Your task to perform on an android device: set default search engine in the chrome app Image 0: 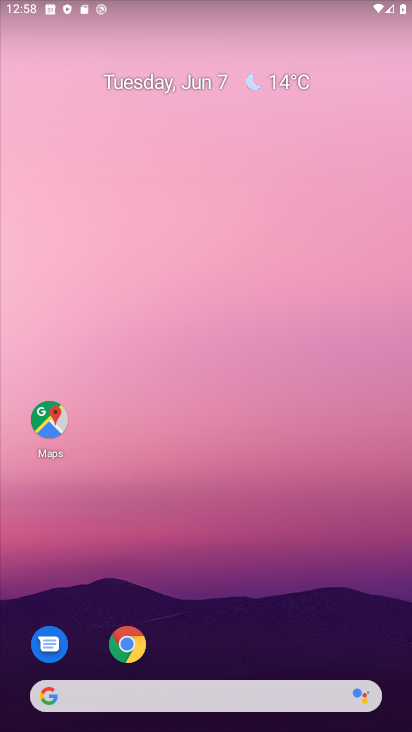
Step 0: click (119, 649)
Your task to perform on an android device: set default search engine in the chrome app Image 1: 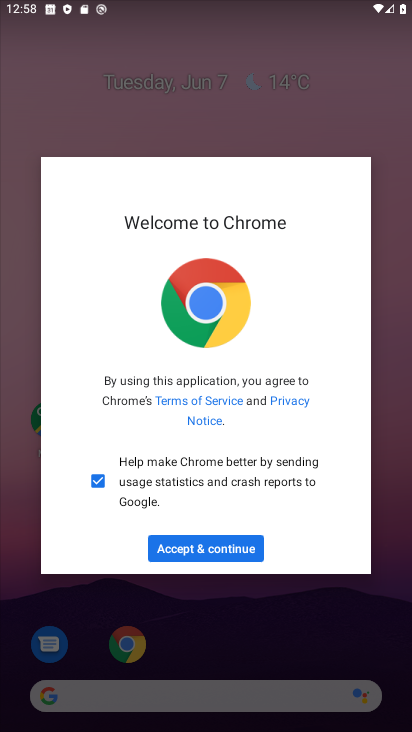
Step 1: click (209, 557)
Your task to perform on an android device: set default search engine in the chrome app Image 2: 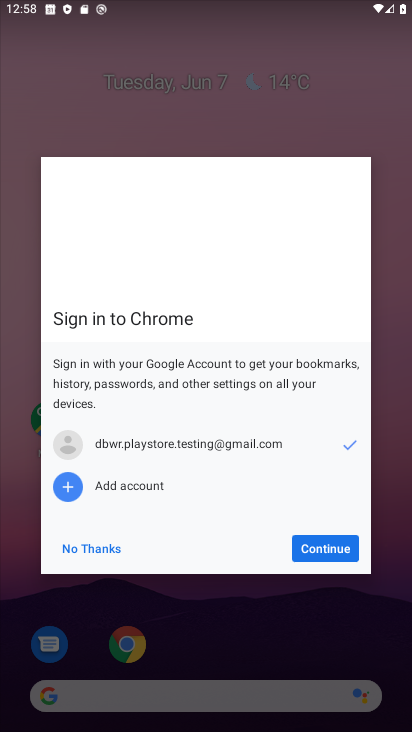
Step 2: click (332, 558)
Your task to perform on an android device: set default search engine in the chrome app Image 3: 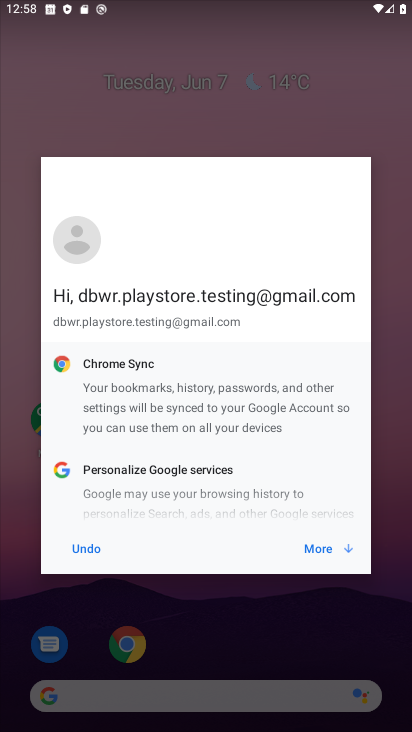
Step 3: click (332, 558)
Your task to perform on an android device: set default search engine in the chrome app Image 4: 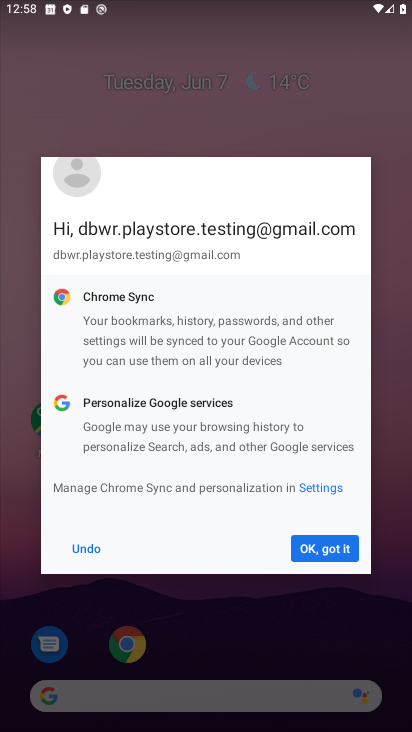
Step 4: click (329, 552)
Your task to perform on an android device: set default search engine in the chrome app Image 5: 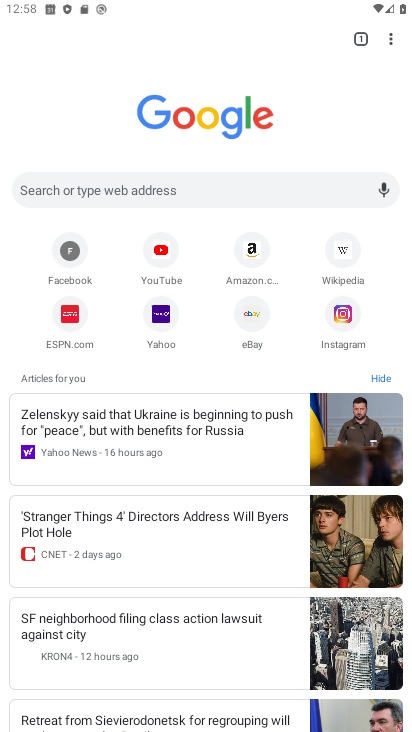
Step 5: click (388, 31)
Your task to perform on an android device: set default search engine in the chrome app Image 6: 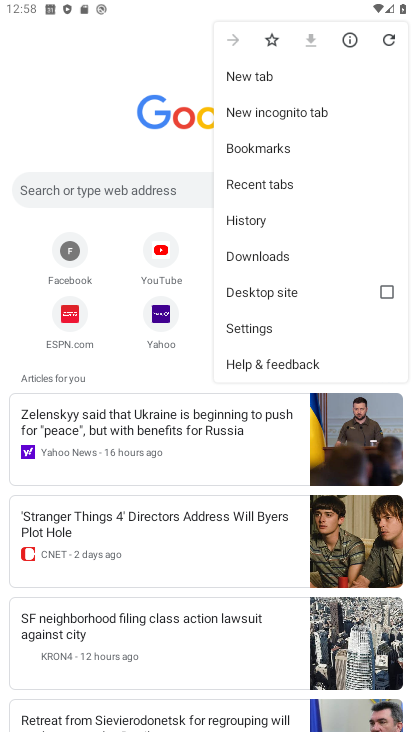
Step 6: click (257, 329)
Your task to perform on an android device: set default search engine in the chrome app Image 7: 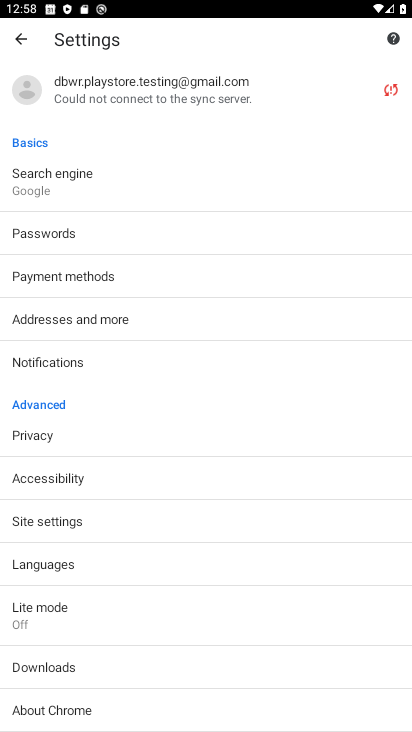
Step 7: click (115, 185)
Your task to perform on an android device: set default search engine in the chrome app Image 8: 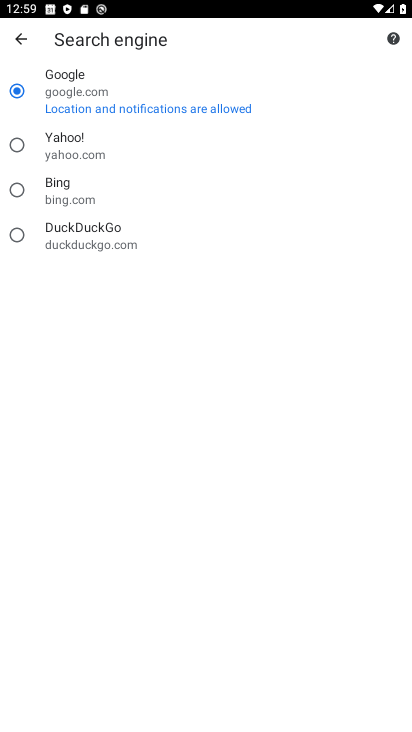
Step 8: click (57, 163)
Your task to perform on an android device: set default search engine in the chrome app Image 9: 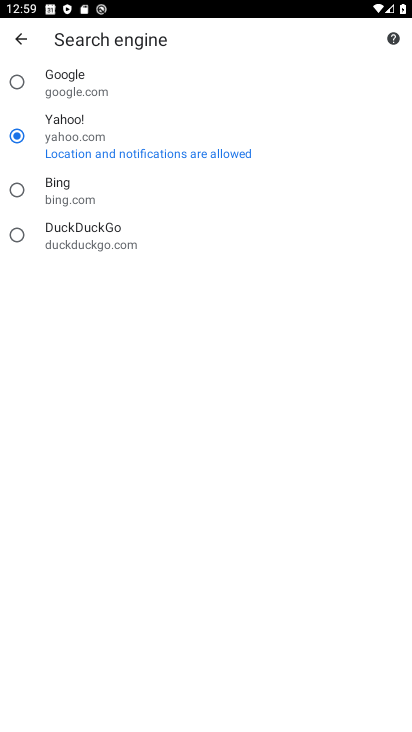
Step 9: task complete